Your task to perform on an android device: Search for seafood restaurants on Google Maps Image 0: 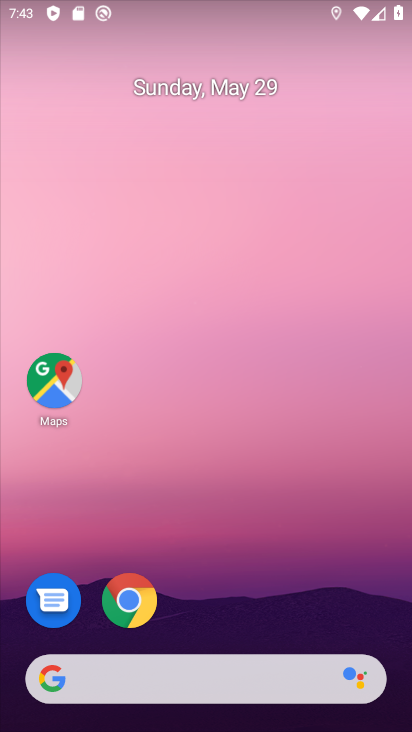
Step 0: click (60, 373)
Your task to perform on an android device: Search for seafood restaurants on Google Maps Image 1: 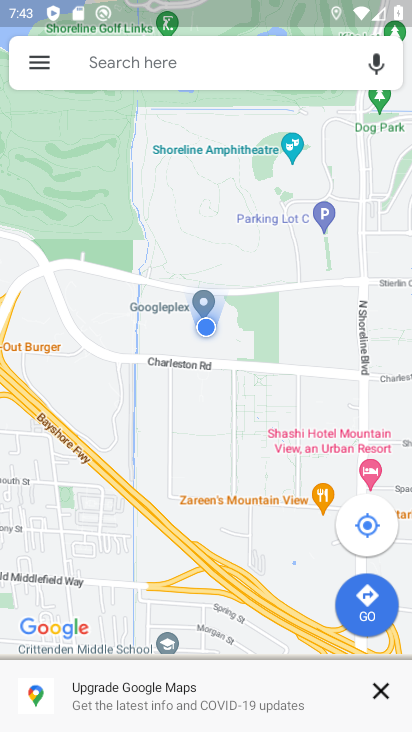
Step 1: click (147, 60)
Your task to perform on an android device: Search for seafood restaurants on Google Maps Image 2: 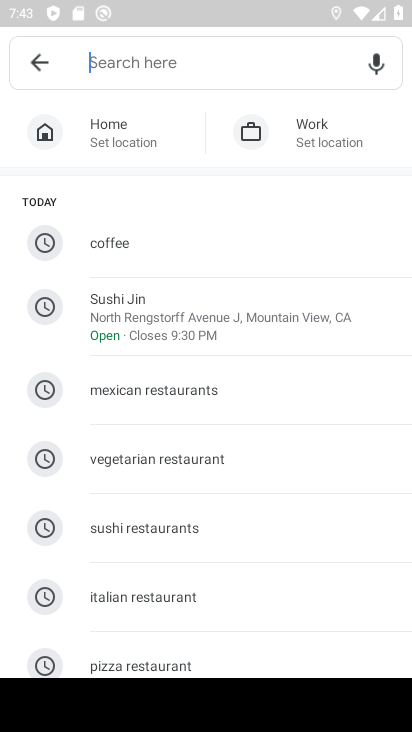
Step 2: type "seafood restaurants"
Your task to perform on an android device: Search for seafood restaurants on Google Maps Image 3: 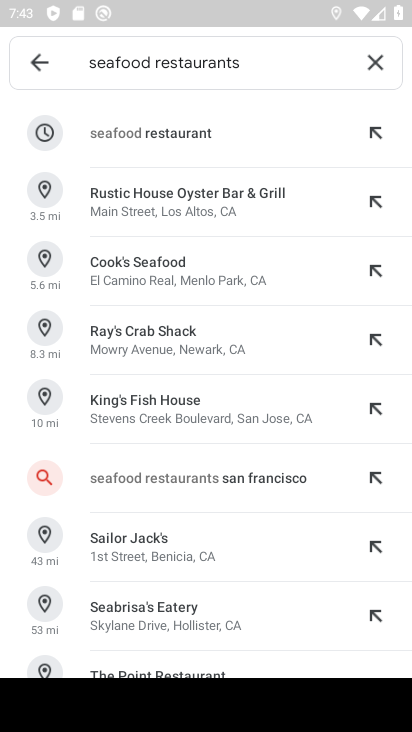
Step 3: click (223, 140)
Your task to perform on an android device: Search for seafood restaurants on Google Maps Image 4: 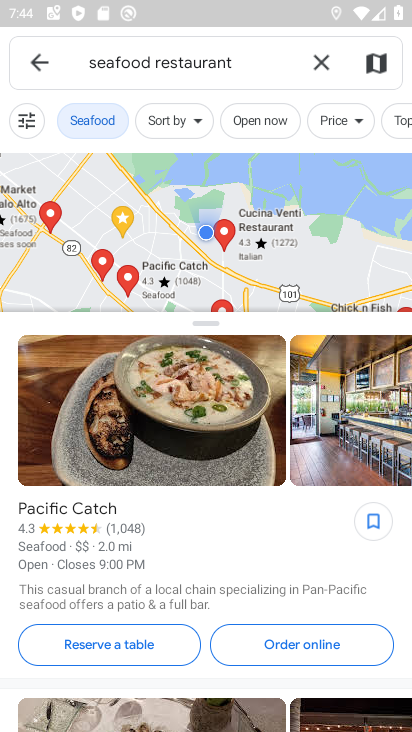
Step 4: task complete